Your task to perform on an android device: What is the news today? Image 0: 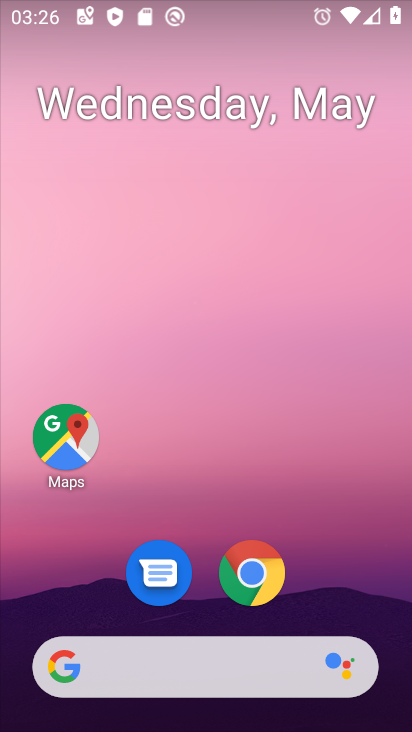
Step 0: drag from (215, 724) to (215, 135)
Your task to perform on an android device: What is the news today? Image 1: 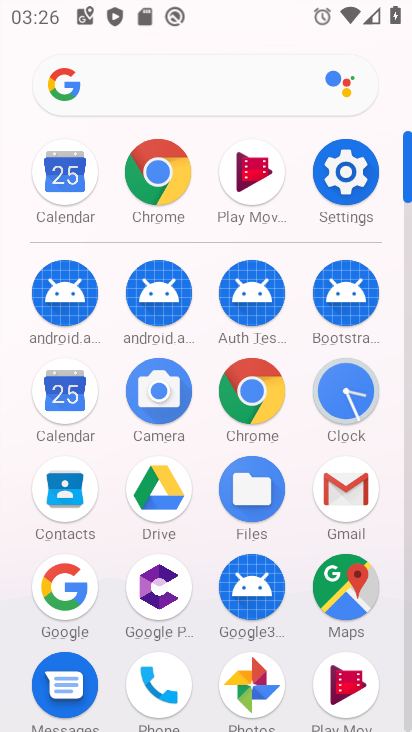
Step 1: click (65, 586)
Your task to perform on an android device: What is the news today? Image 2: 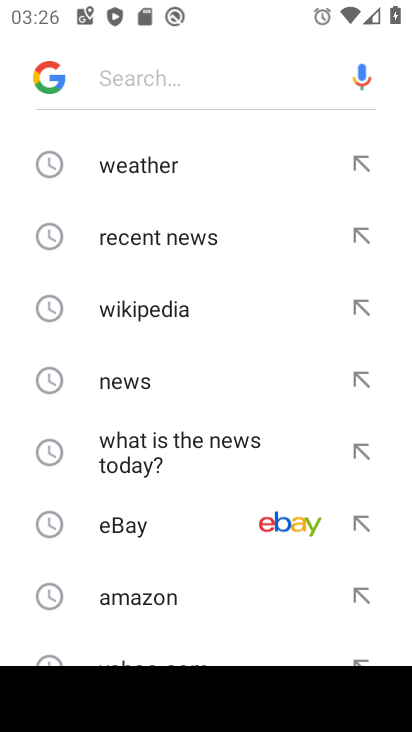
Step 2: click (133, 384)
Your task to perform on an android device: What is the news today? Image 3: 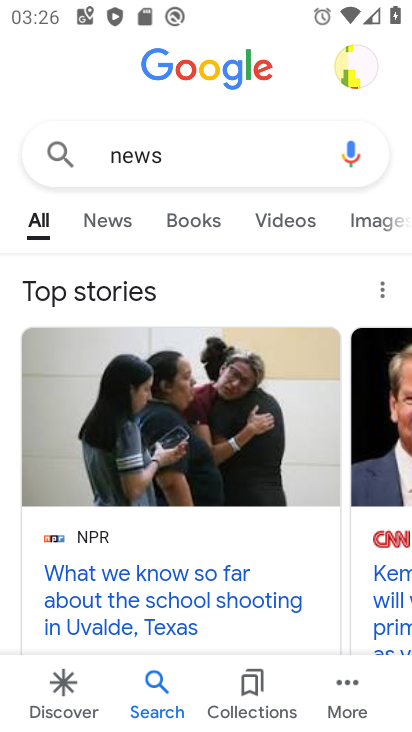
Step 3: click (102, 224)
Your task to perform on an android device: What is the news today? Image 4: 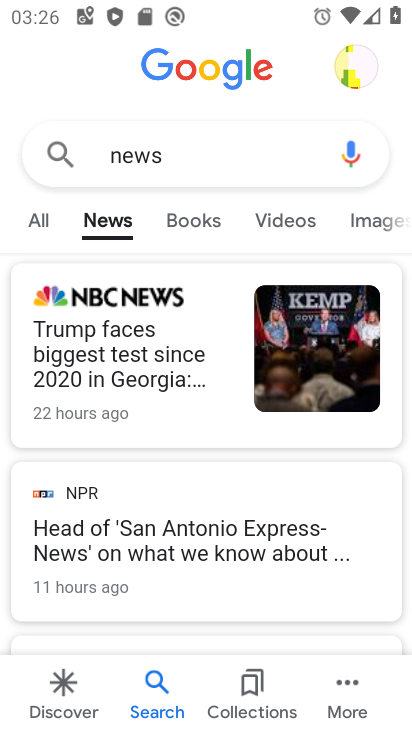
Step 4: task complete